Your task to perform on an android device: find which apps use the phone's location Image 0: 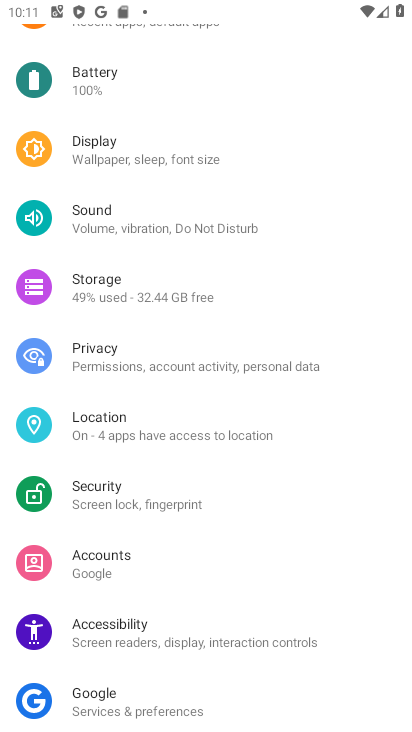
Step 0: drag from (286, 639) to (233, 160)
Your task to perform on an android device: find which apps use the phone's location Image 1: 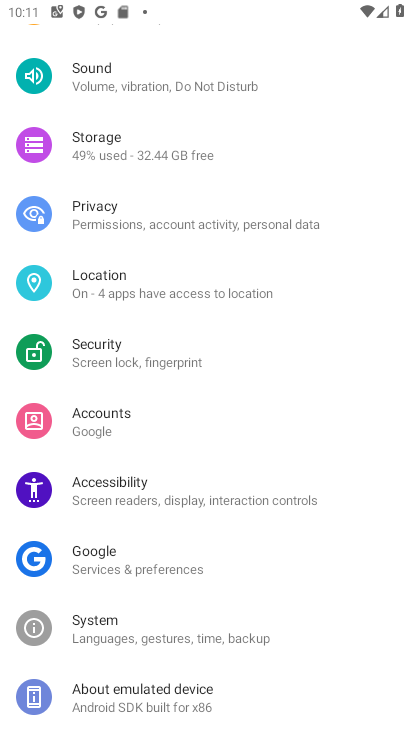
Step 1: click (121, 277)
Your task to perform on an android device: find which apps use the phone's location Image 2: 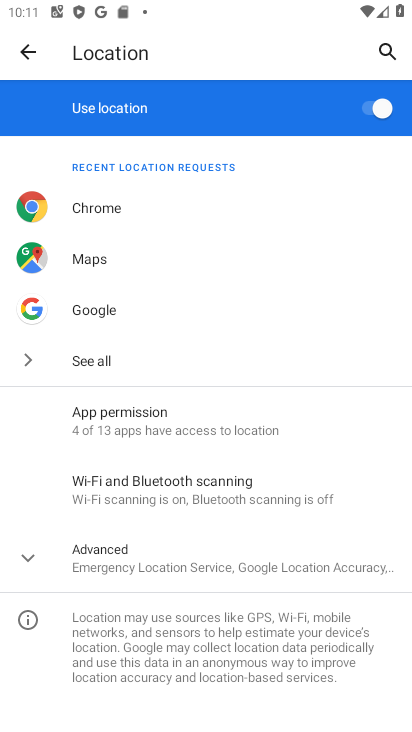
Step 2: click (187, 208)
Your task to perform on an android device: find which apps use the phone's location Image 3: 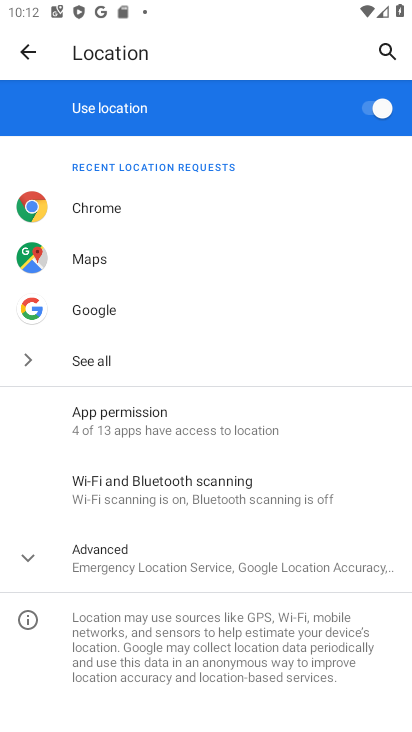
Step 3: click (154, 436)
Your task to perform on an android device: find which apps use the phone's location Image 4: 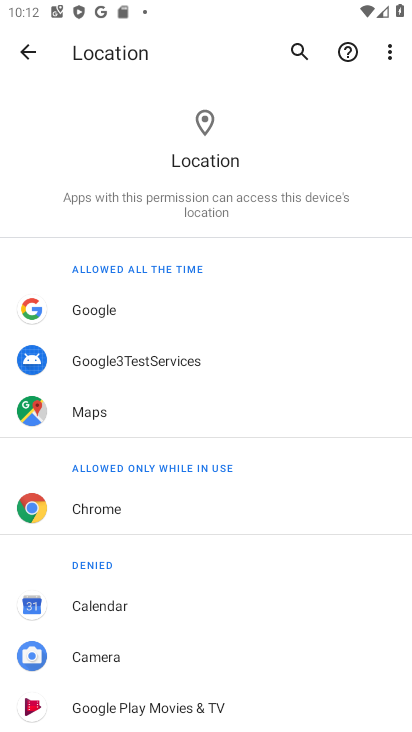
Step 4: task complete